Your task to perform on an android device: snooze an email in the gmail app Image 0: 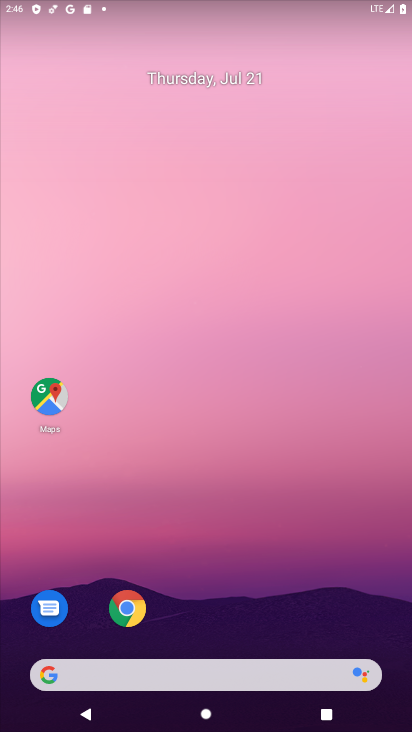
Step 0: drag from (192, 665) to (157, 176)
Your task to perform on an android device: snooze an email in the gmail app Image 1: 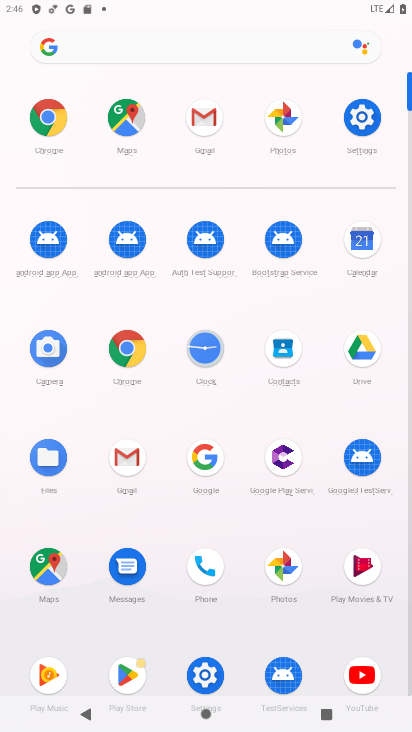
Step 1: click (131, 480)
Your task to perform on an android device: snooze an email in the gmail app Image 2: 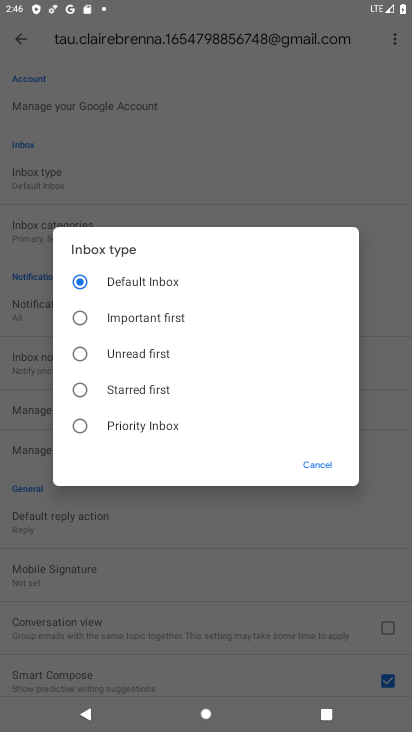
Step 2: click (315, 455)
Your task to perform on an android device: snooze an email in the gmail app Image 3: 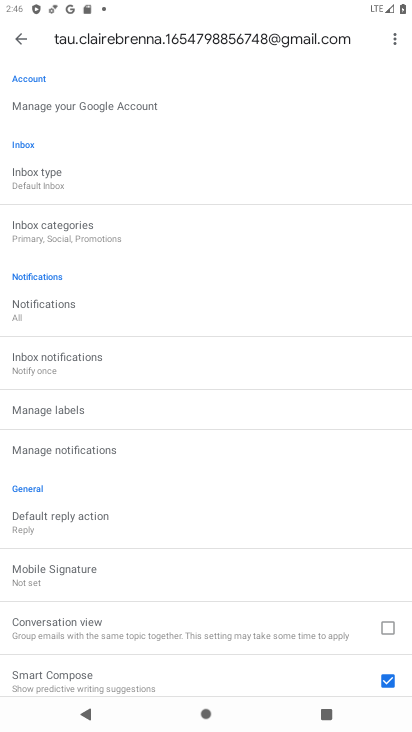
Step 3: click (26, 36)
Your task to perform on an android device: snooze an email in the gmail app Image 4: 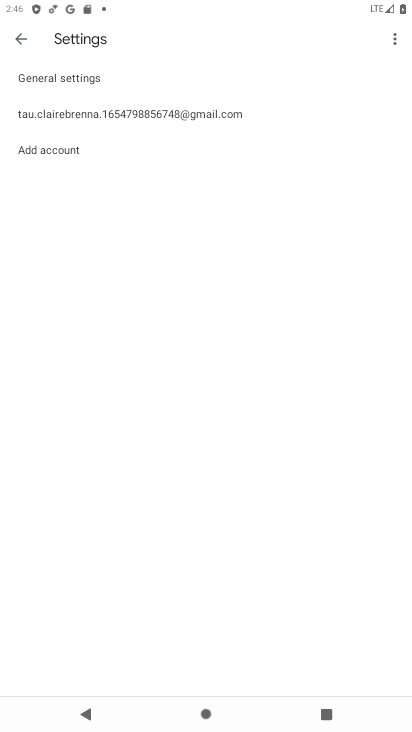
Step 4: click (24, 25)
Your task to perform on an android device: snooze an email in the gmail app Image 5: 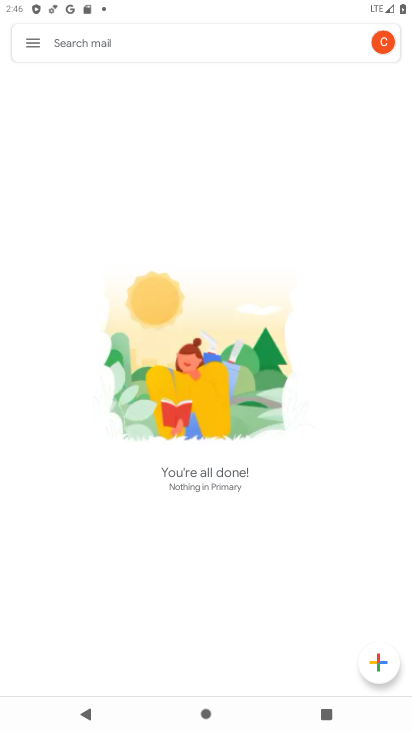
Step 5: task complete